Your task to perform on an android device: Open the calendar app, open the side menu, and click the "Day" option Image 0: 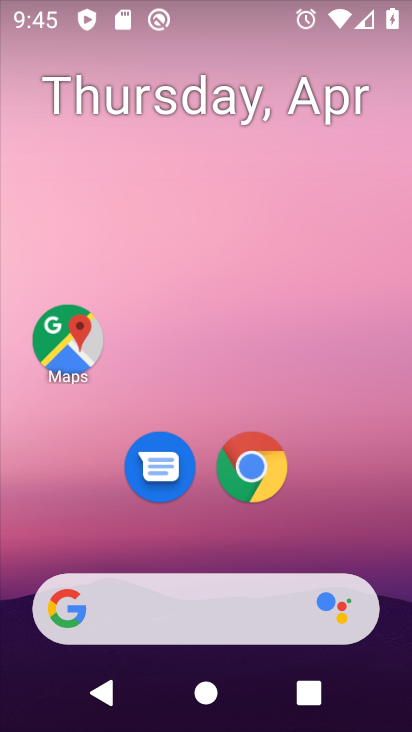
Step 0: drag from (396, 592) to (274, 158)
Your task to perform on an android device: Open the calendar app, open the side menu, and click the "Day" option Image 1: 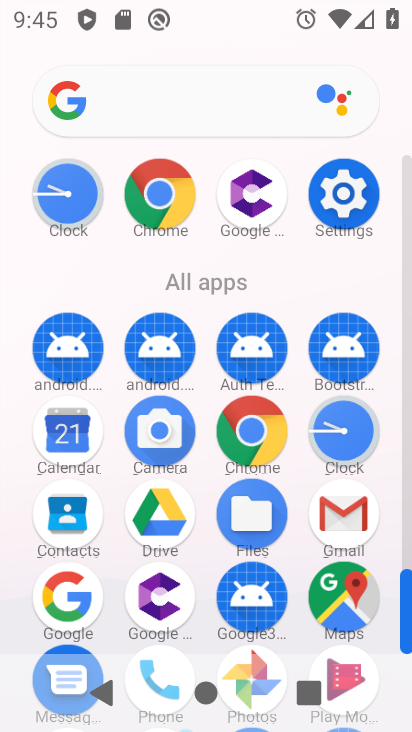
Step 1: click (66, 435)
Your task to perform on an android device: Open the calendar app, open the side menu, and click the "Day" option Image 2: 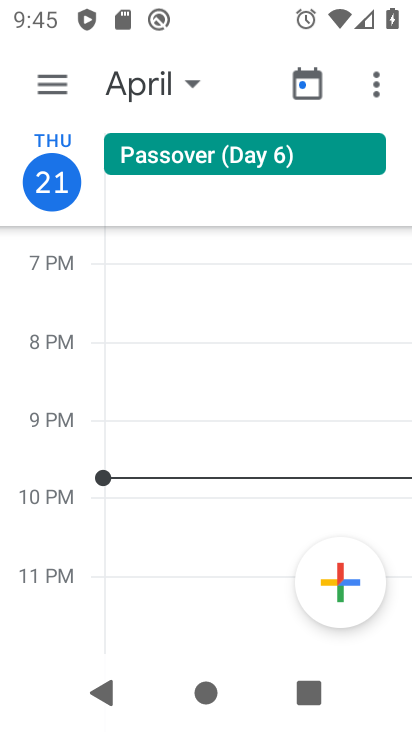
Step 2: click (56, 84)
Your task to perform on an android device: Open the calendar app, open the side menu, and click the "Day" option Image 3: 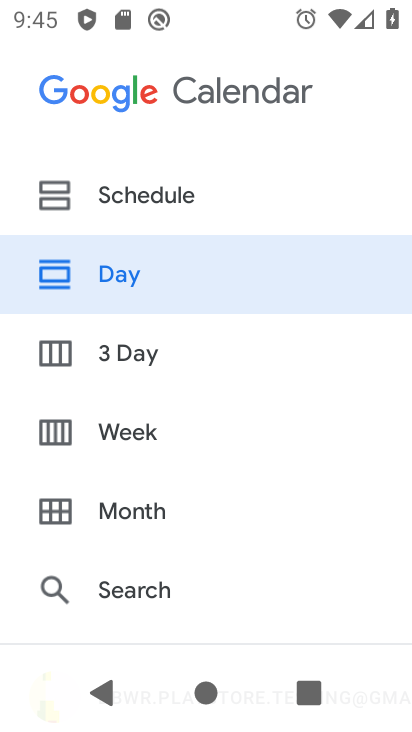
Step 3: click (100, 256)
Your task to perform on an android device: Open the calendar app, open the side menu, and click the "Day" option Image 4: 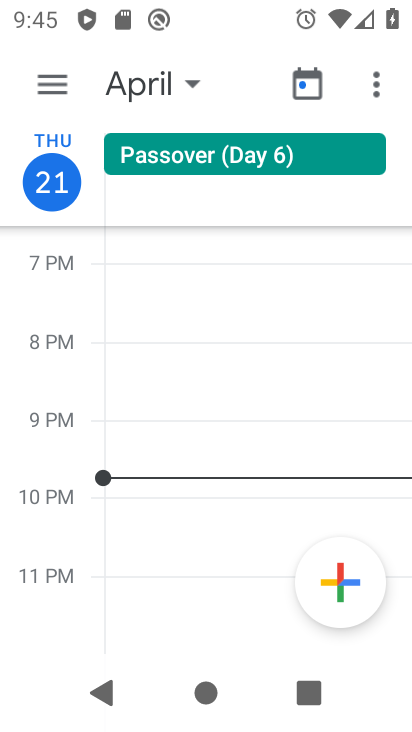
Step 4: task complete